Your task to perform on an android device: visit the assistant section in the google photos Image 0: 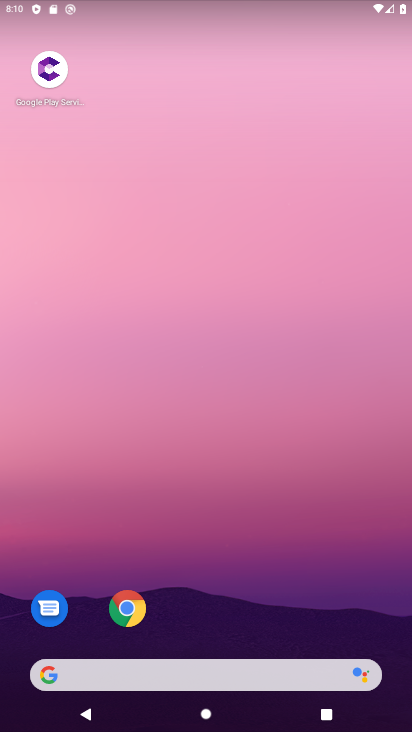
Step 0: drag from (259, 595) to (326, 71)
Your task to perform on an android device: visit the assistant section in the google photos Image 1: 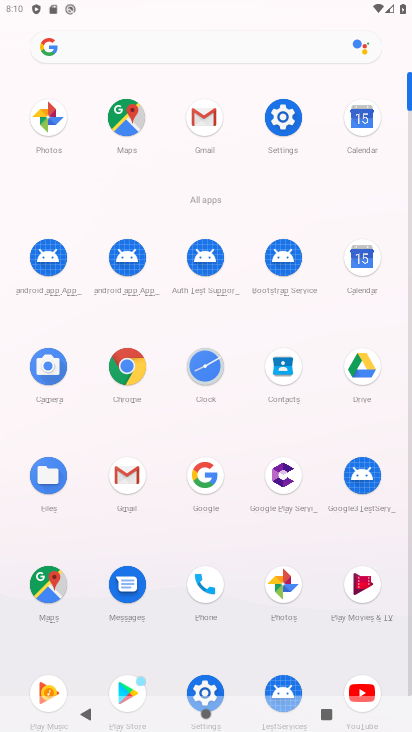
Step 1: click (274, 589)
Your task to perform on an android device: visit the assistant section in the google photos Image 2: 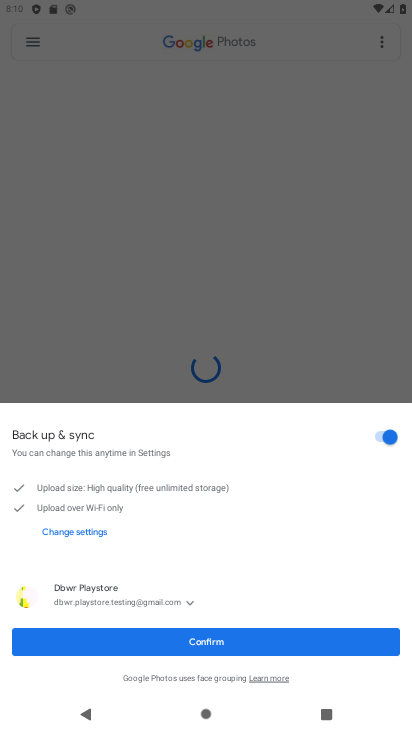
Step 2: click (210, 639)
Your task to perform on an android device: visit the assistant section in the google photos Image 3: 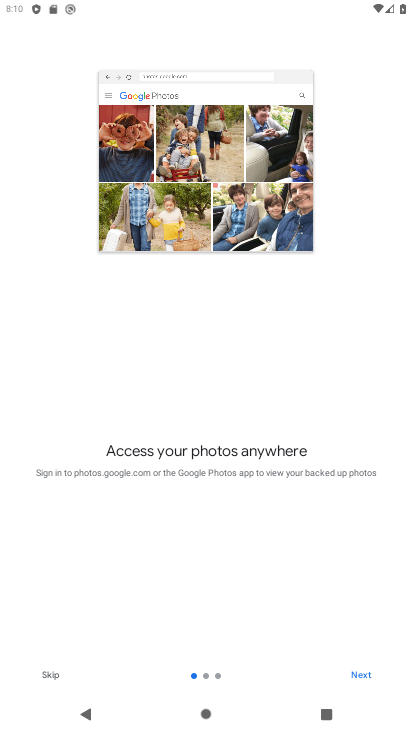
Step 3: click (362, 661)
Your task to perform on an android device: visit the assistant section in the google photos Image 4: 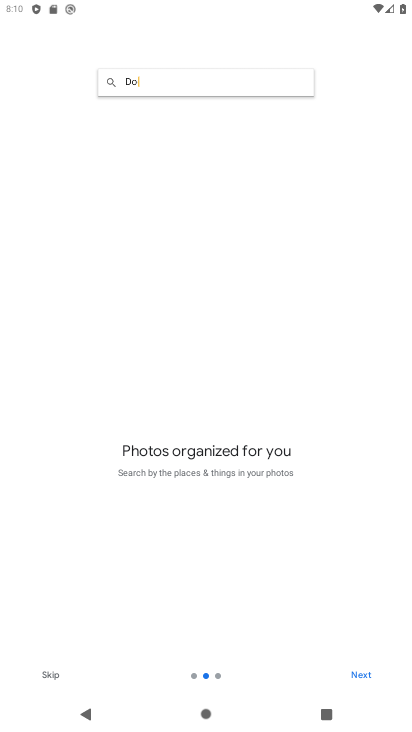
Step 4: click (362, 669)
Your task to perform on an android device: visit the assistant section in the google photos Image 5: 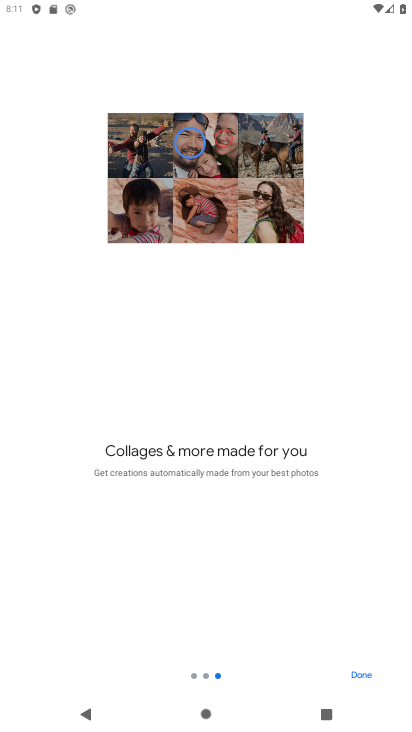
Step 5: click (362, 676)
Your task to perform on an android device: visit the assistant section in the google photos Image 6: 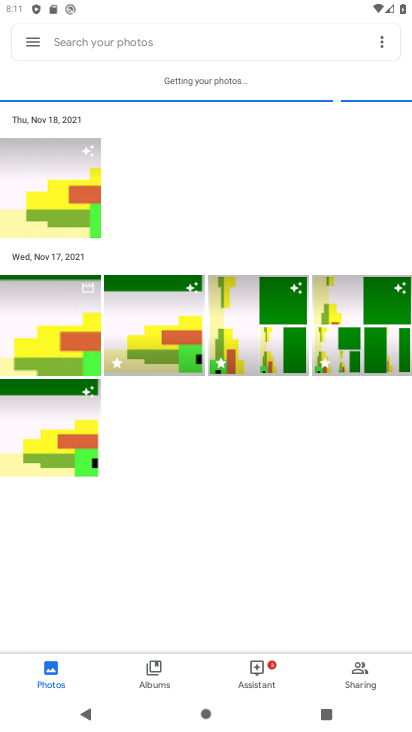
Step 6: click (266, 671)
Your task to perform on an android device: visit the assistant section in the google photos Image 7: 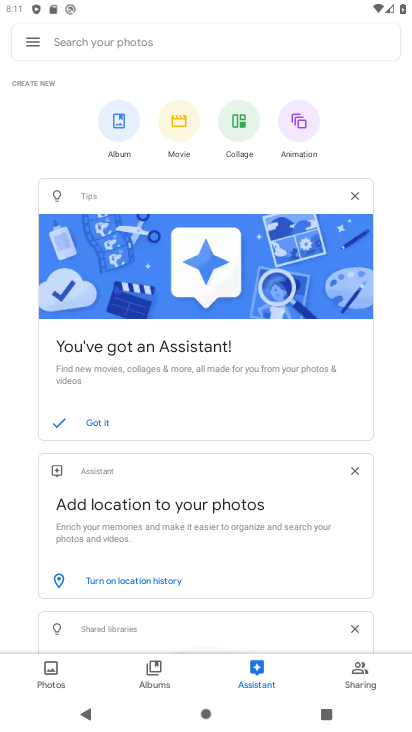
Step 7: task complete